Your task to perform on an android device: Search for sushi restaurants on Maps Image 0: 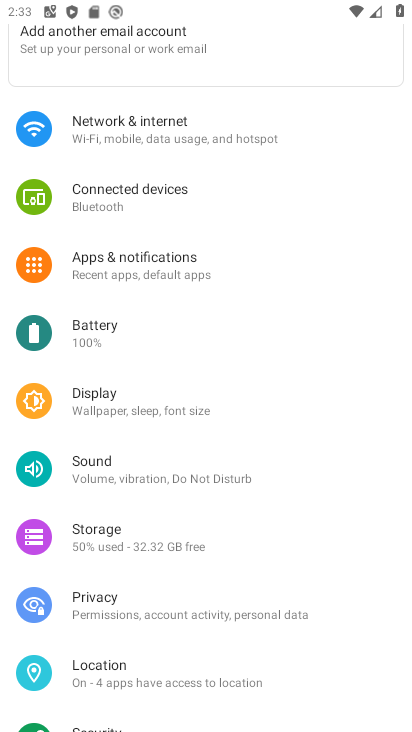
Step 0: press home button
Your task to perform on an android device: Search for sushi restaurants on Maps Image 1: 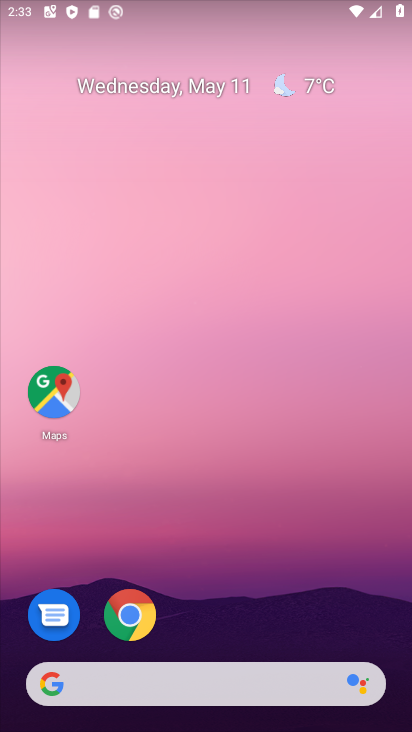
Step 1: click (43, 385)
Your task to perform on an android device: Search for sushi restaurants on Maps Image 2: 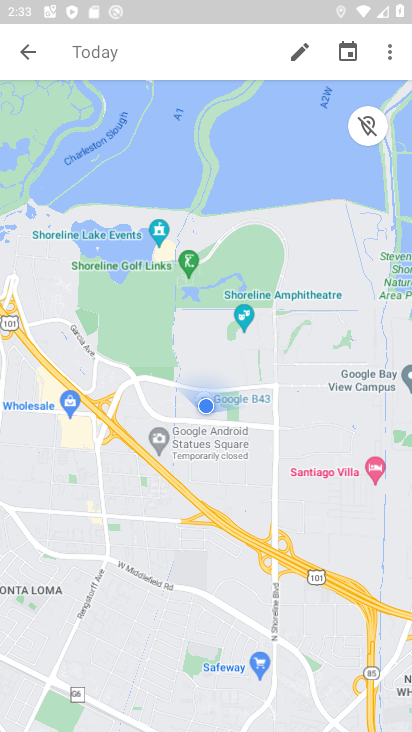
Step 2: click (34, 51)
Your task to perform on an android device: Search for sushi restaurants on Maps Image 3: 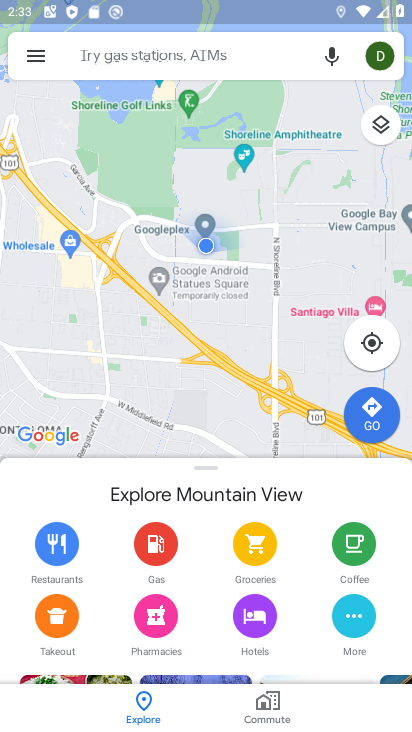
Step 3: click (234, 63)
Your task to perform on an android device: Search for sushi restaurants on Maps Image 4: 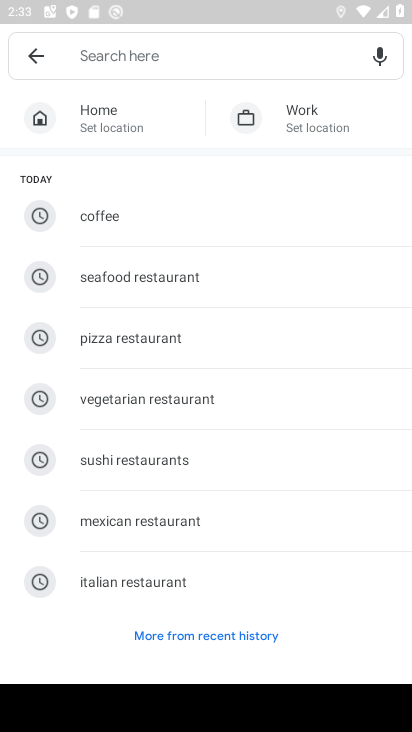
Step 4: click (159, 460)
Your task to perform on an android device: Search for sushi restaurants on Maps Image 5: 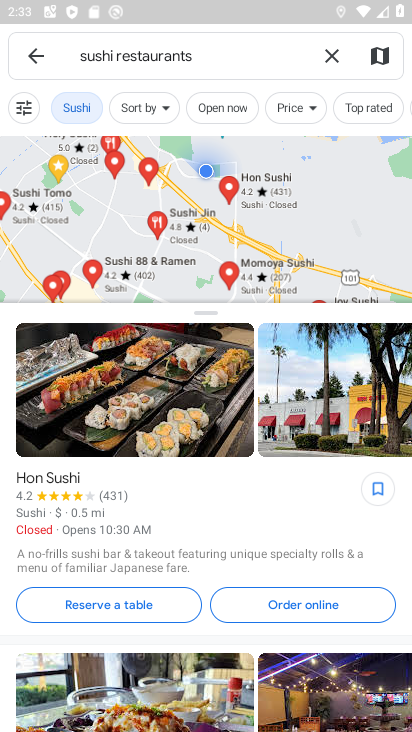
Step 5: task complete